Your task to perform on an android device: What's the weather going to be tomorrow? Image 0: 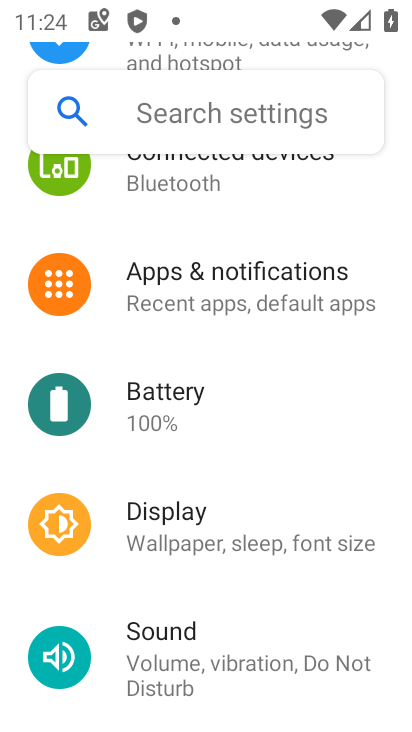
Step 0: press home button
Your task to perform on an android device: What's the weather going to be tomorrow? Image 1: 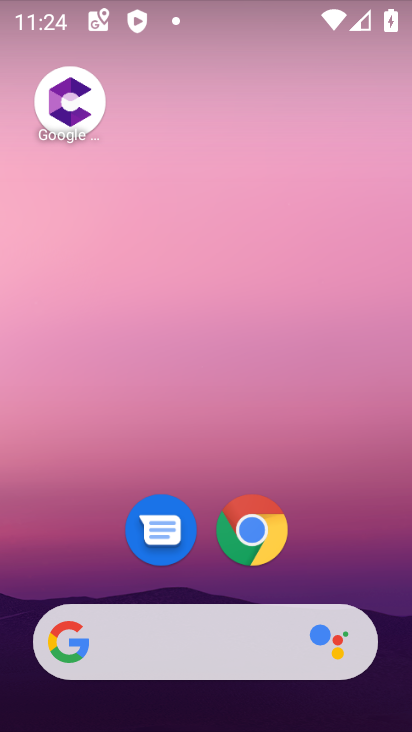
Step 1: click (380, 268)
Your task to perform on an android device: What's the weather going to be tomorrow? Image 2: 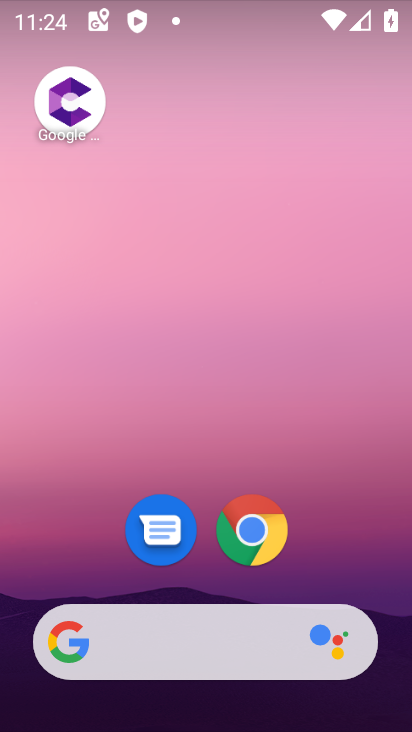
Step 2: click (50, 660)
Your task to perform on an android device: What's the weather going to be tomorrow? Image 3: 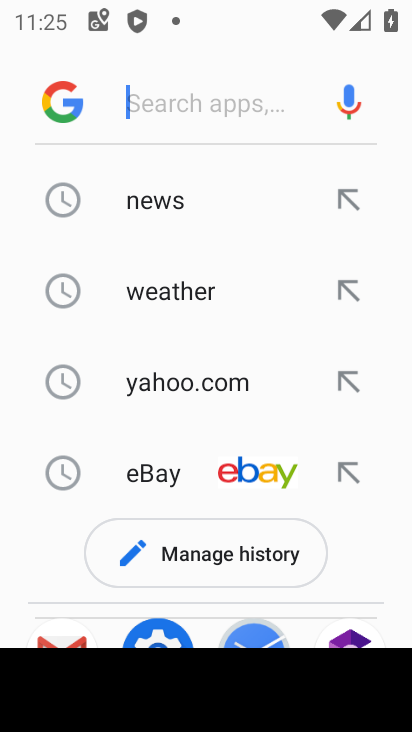
Step 3: click (65, 93)
Your task to perform on an android device: What's the weather going to be tomorrow? Image 4: 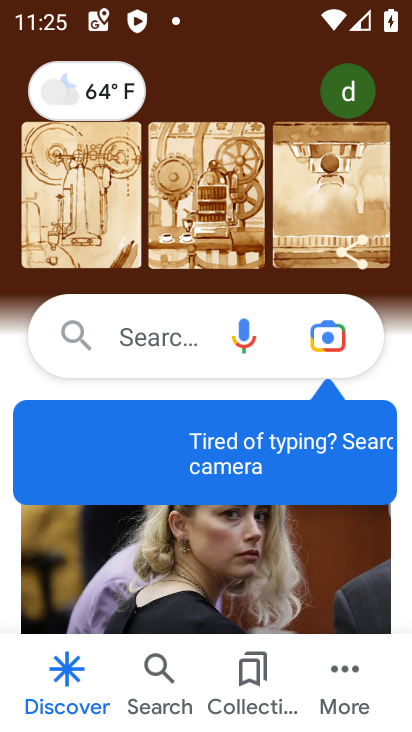
Step 4: click (112, 92)
Your task to perform on an android device: What's the weather going to be tomorrow? Image 5: 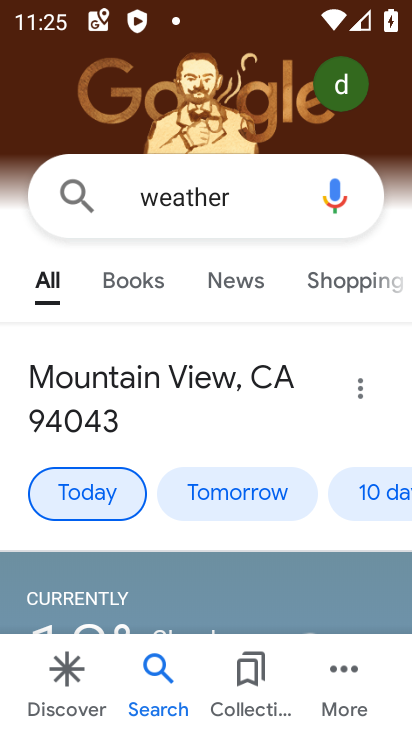
Step 5: click (204, 492)
Your task to perform on an android device: What's the weather going to be tomorrow? Image 6: 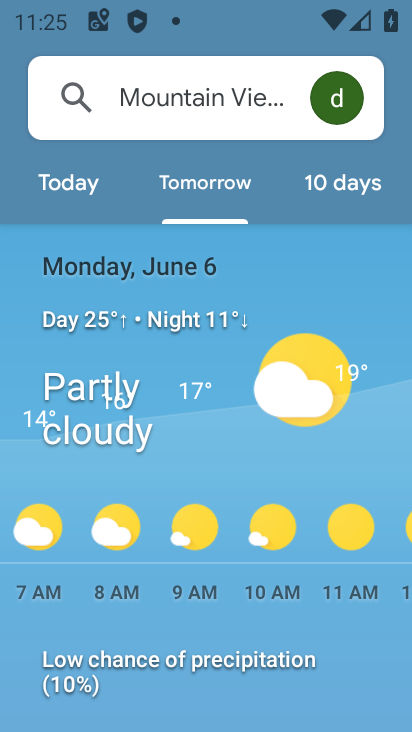
Step 6: task complete